Your task to perform on an android device: turn off location history Image 0: 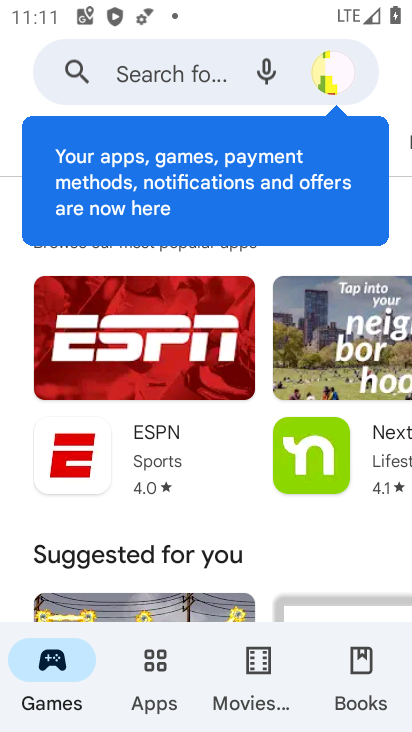
Step 0: press home button
Your task to perform on an android device: turn off location history Image 1: 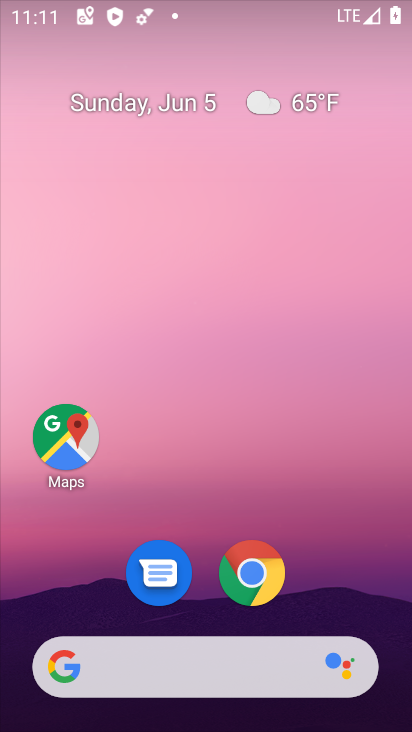
Step 1: drag from (231, 427) to (233, 63)
Your task to perform on an android device: turn off location history Image 2: 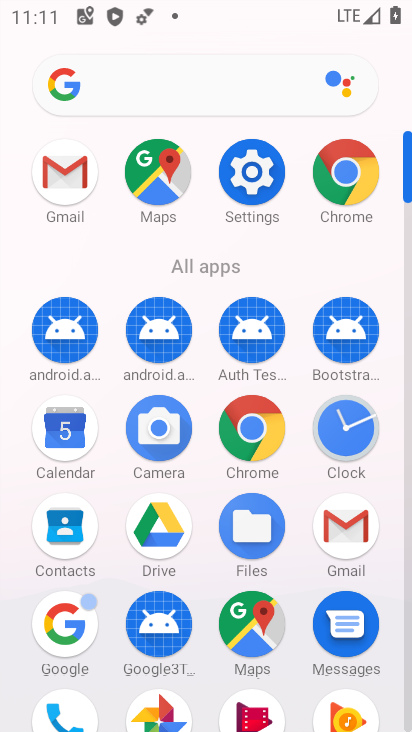
Step 2: drag from (197, 268) to (194, 27)
Your task to perform on an android device: turn off location history Image 3: 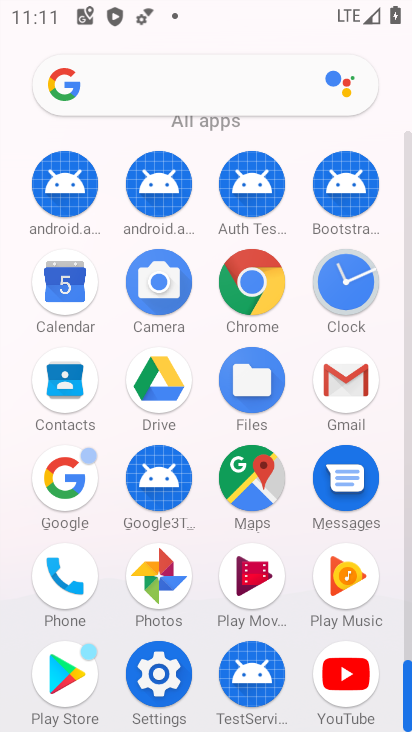
Step 3: click (164, 692)
Your task to perform on an android device: turn off location history Image 4: 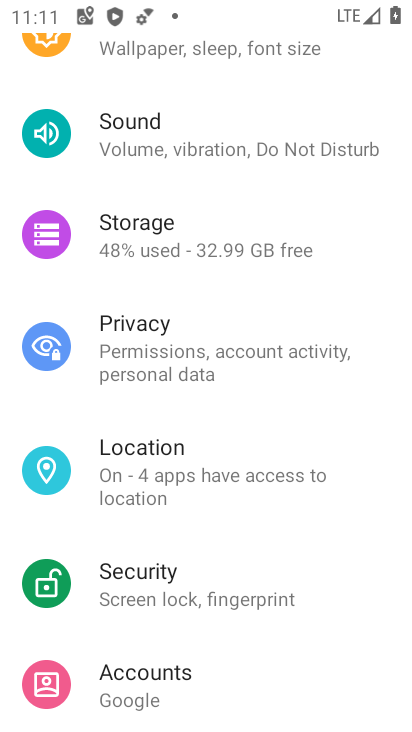
Step 4: click (192, 492)
Your task to perform on an android device: turn off location history Image 5: 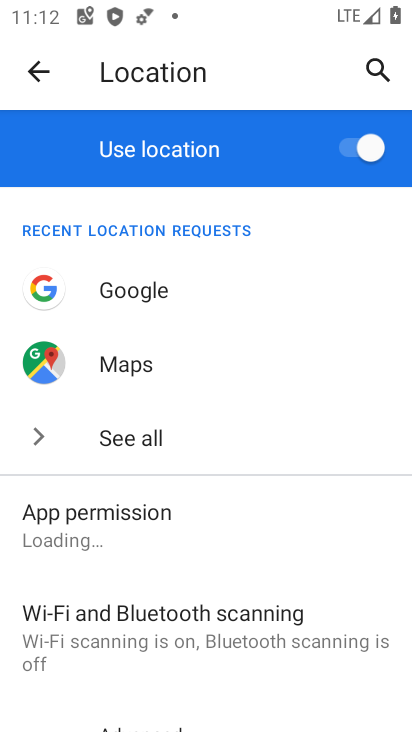
Step 5: drag from (249, 505) to (236, 99)
Your task to perform on an android device: turn off location history Image 6: 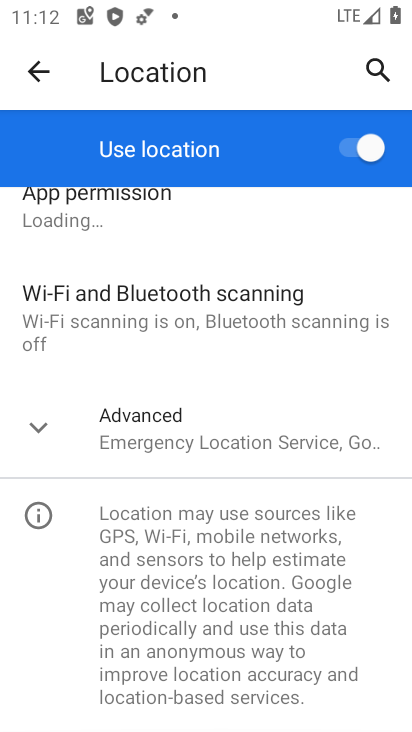
Step 6: click (170, 423)
Your task to perform on an android device: turn off location history Image 7: 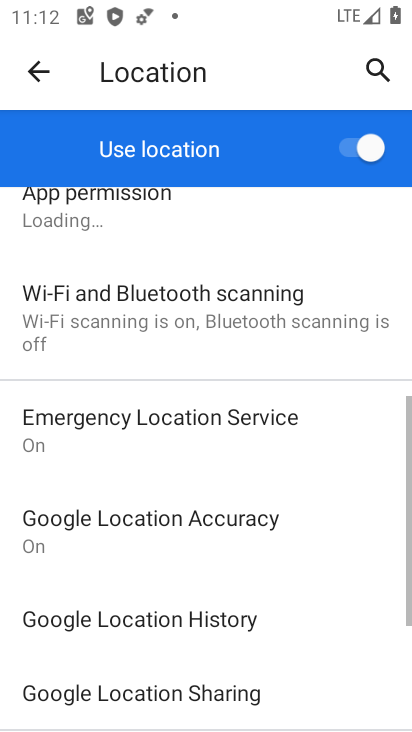
Step 7: drag from (173, 425) to (207, 203)
Your task to perform on an android device: turn off location history Image 8: 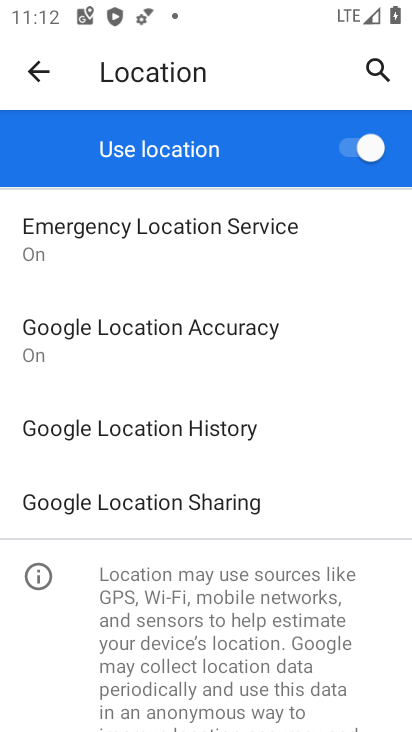
Step 8: click (251, 435)
Your task to perform on an android device: turn off location history Image 9: 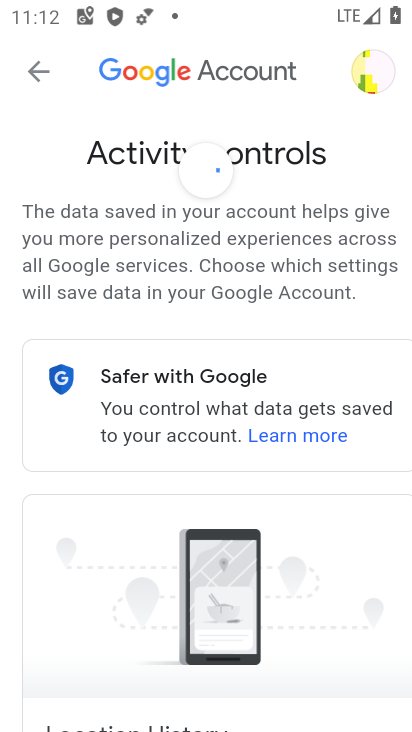
Step 9: drag from (286, 512) to (265, 178)
Your task to perform on an android device: turn off location history Image 10: 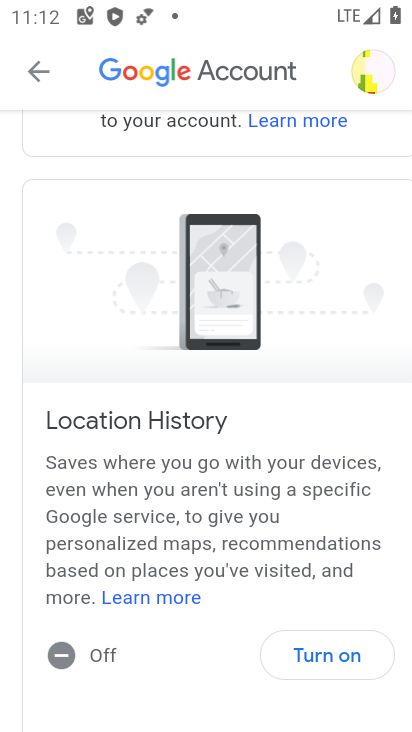
Step 10: click (311, 655)
Your task to perform on an android device: turn off location history Image 11: 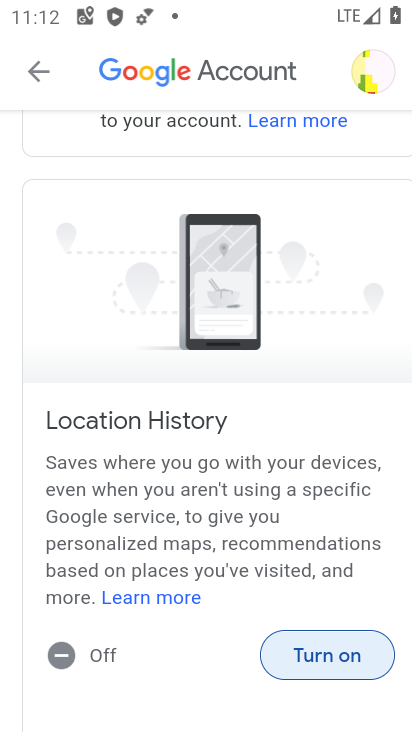
Step 11: drag from (253, 525) to (222, 190)
Your task to perform on an android device: turn off location history Image 12: 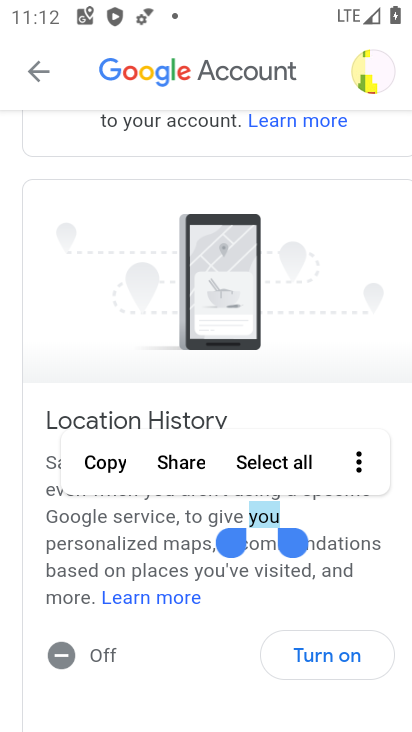
Step 12: click (334, 542)
Your task to perform on an android device: turn off location history Image 13: 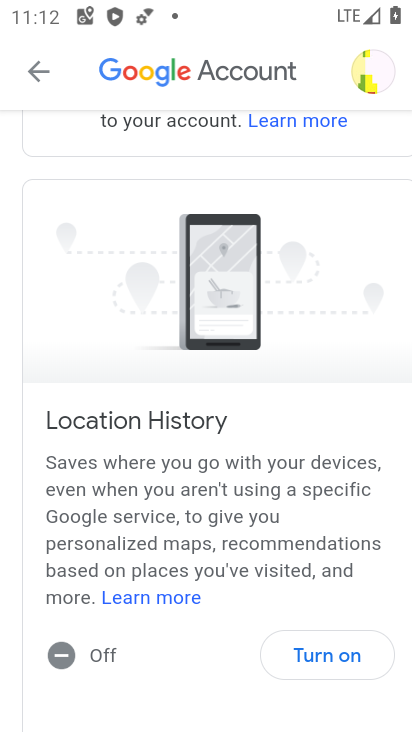
Step 13: task complete